Your task to perform on an android device: When is my next appointment? Image 0: 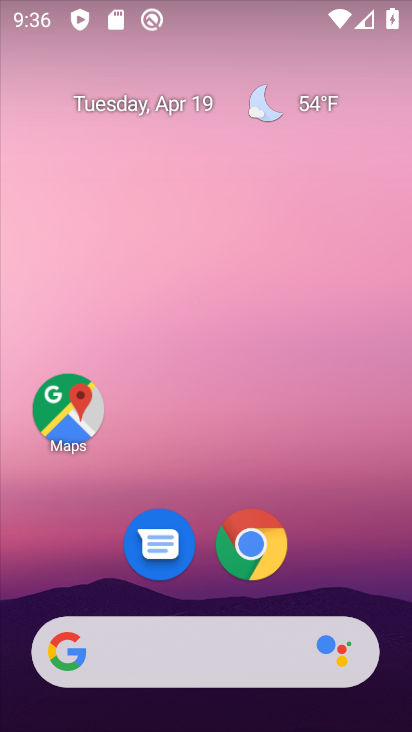
Step 0: drag from (335, 574) to (384, 95)
Your task to perform on an android device: When is my next appointment? Image 1: 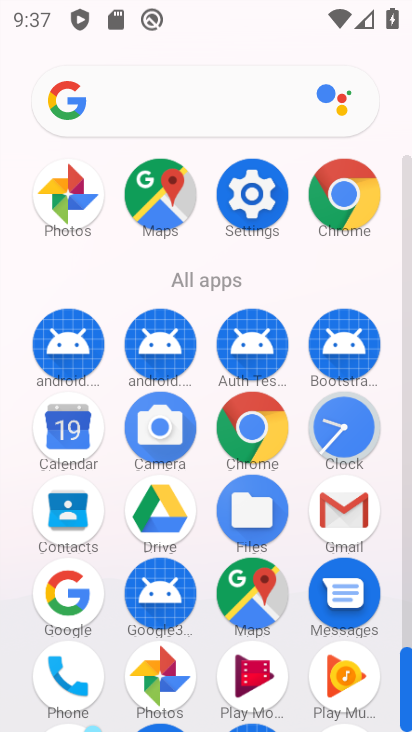
Step 1: click (78, 452)
Your task to perform on an android device: When is my next appointment? Image 2: 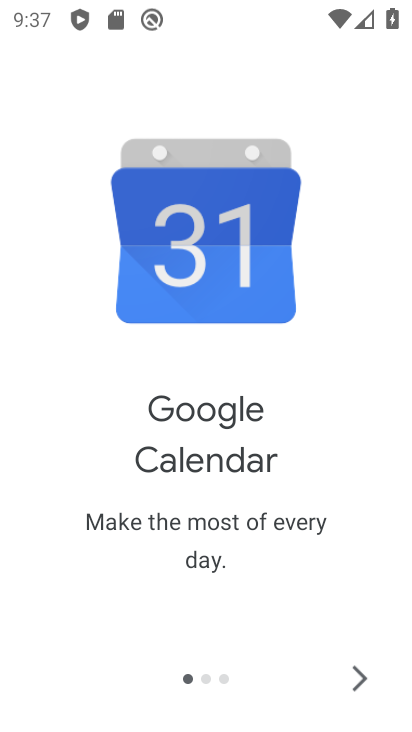
Step 2: click (355, 679)
Your task to perform on an android device: When is my next appointment? Image 3: 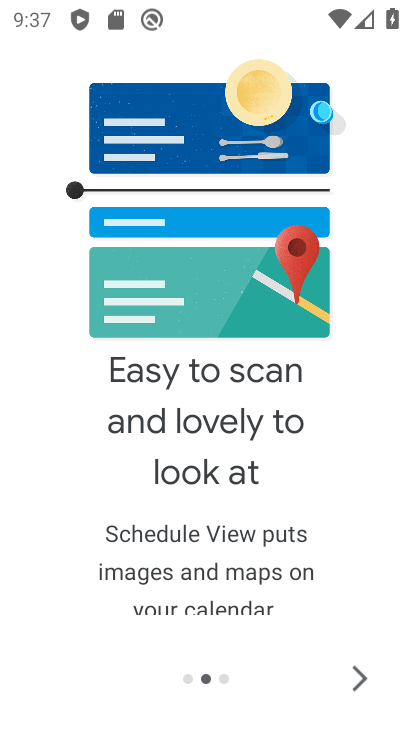
Step 3: click (355, 679)
Your task to perform on an android device: When is my next appointment? Image 4: 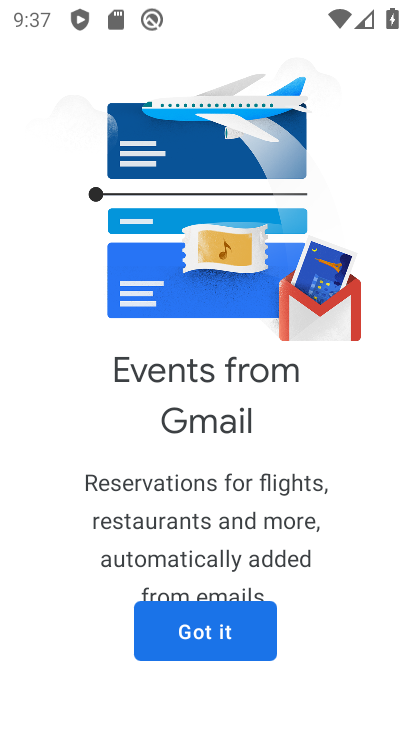
Step 4: click (266, 626)
Your task to perform on an android device: When is my next appointment? Image 5: 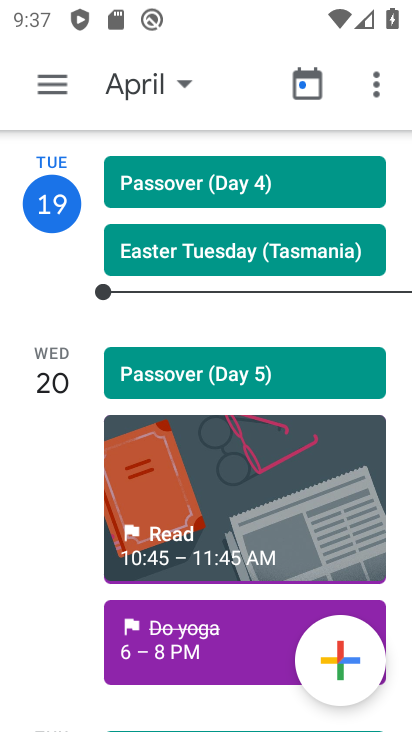
Step 5: task complete